Your task to perform on an android device: Go to Reddit.com Image 0: 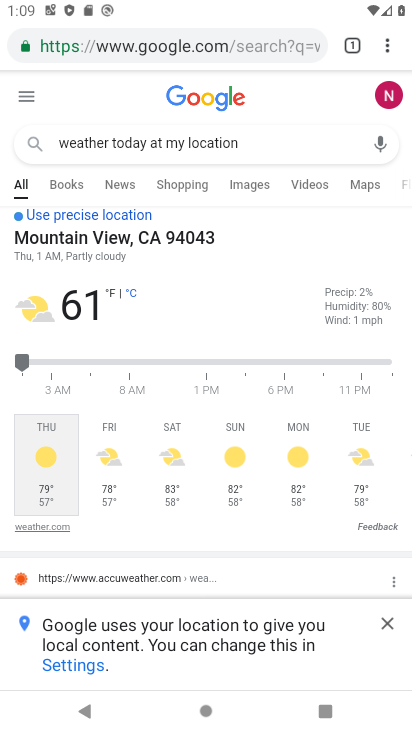
Step 0: press back button
Your task to perform on an android device: Go to Reddit.com Image 1: 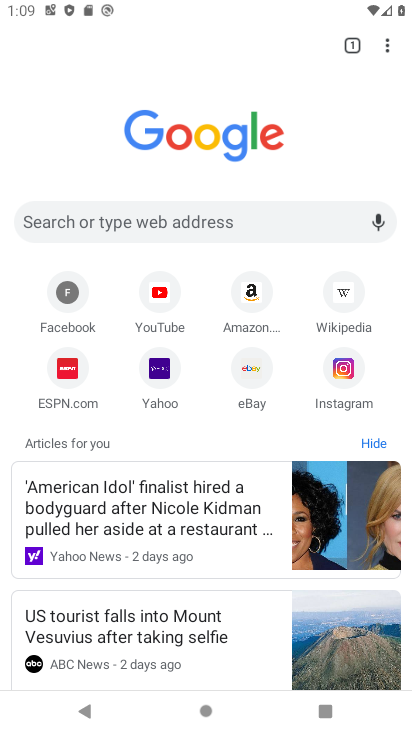
Step 1: click (58, 226)
Your task to perform on an android device: Go to Reddit.com Image 2: 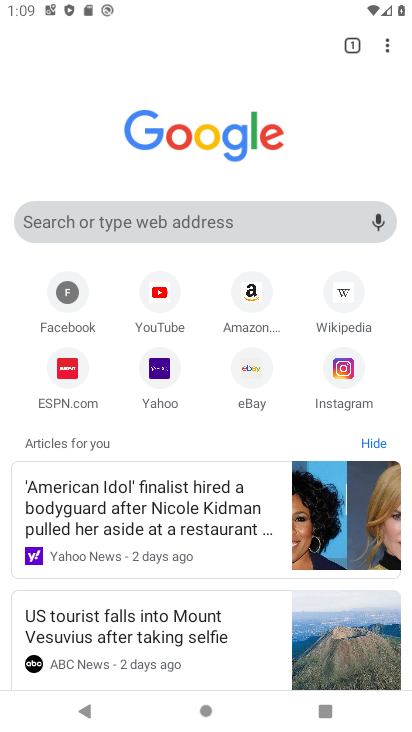
Step 2: click (58, 223)
Your task to perform on an android device: Go to Reddit.com Image 3: 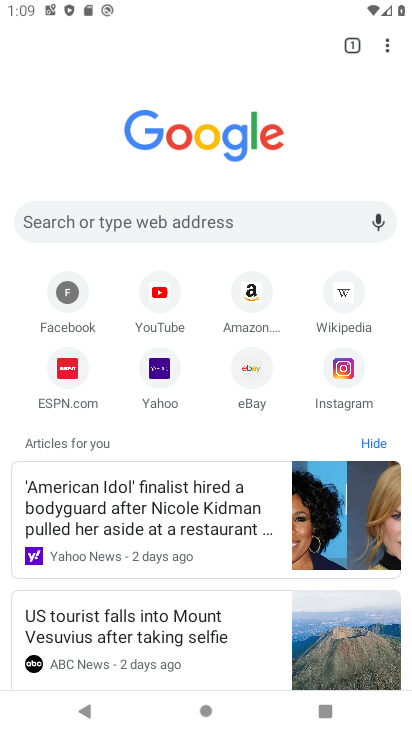
Step 3: click (58, 223)
Your task to perform on an android device: Go to Reddit.com Image 4: 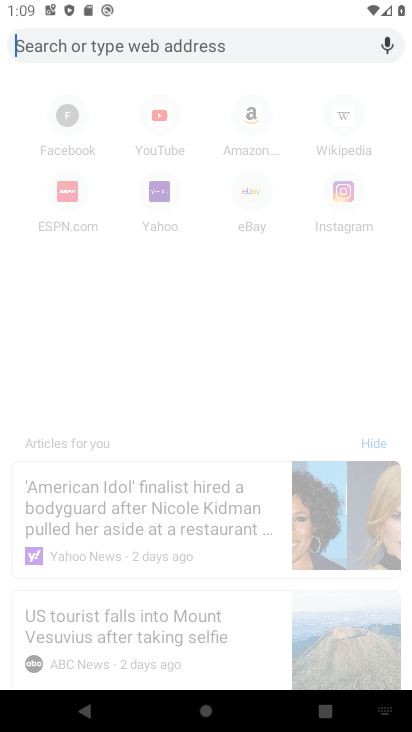
Step 4: type "reddit.com"
Your task to perform on an android device: Go to Reddit.com Image 5: 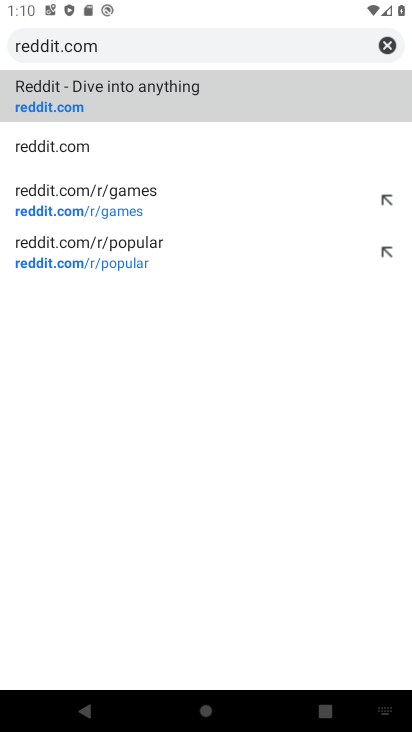
Step 5: click (38, 105)
Your task to perform on an android device: Go to Reddit.com Image 6: 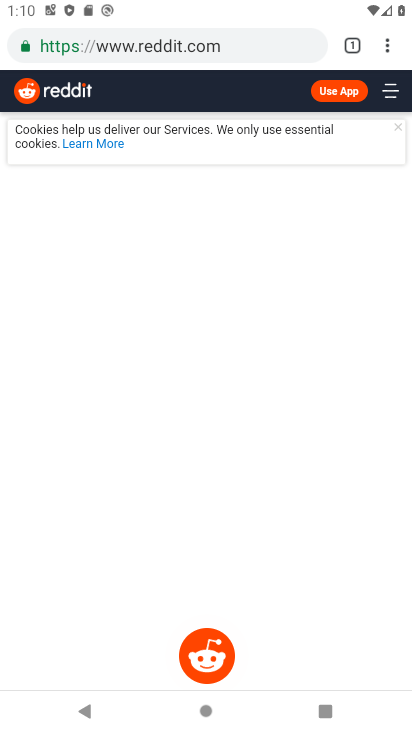
Step 6: task complete